Your task to perform on an android device: delete a single message in the gmail app Image 0: 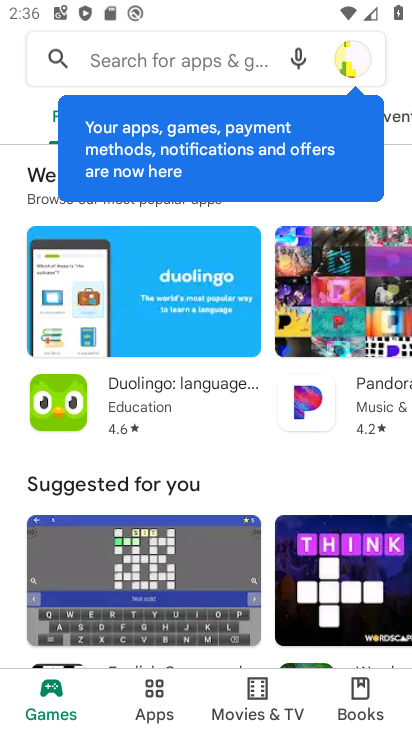
Step 0: drag from (261, 420) to (268, 130)
Your task to perform on an android device: delete a single message in the gmail app Image 1: 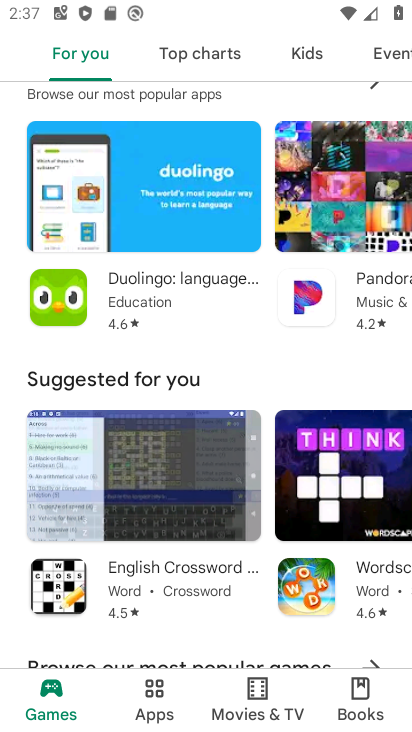
Step 1: press home button
Your task to perform on an android device: delete a single message in the gmail app Image 2: 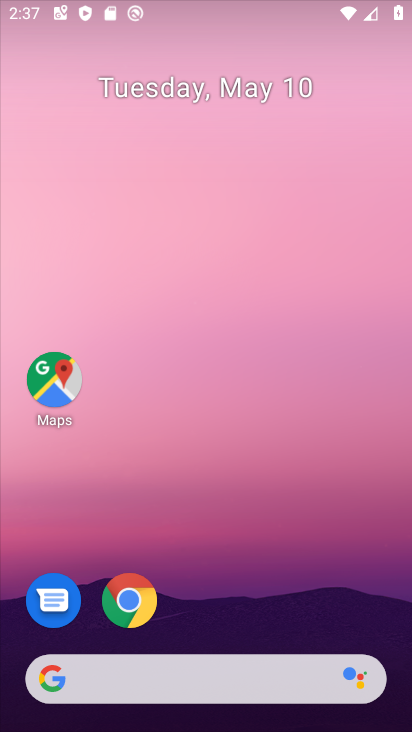
Step 2: drag from (228, 604) to (194, 15)
Your task to perform on an android device: delete a single message in the gmail app Image 3: 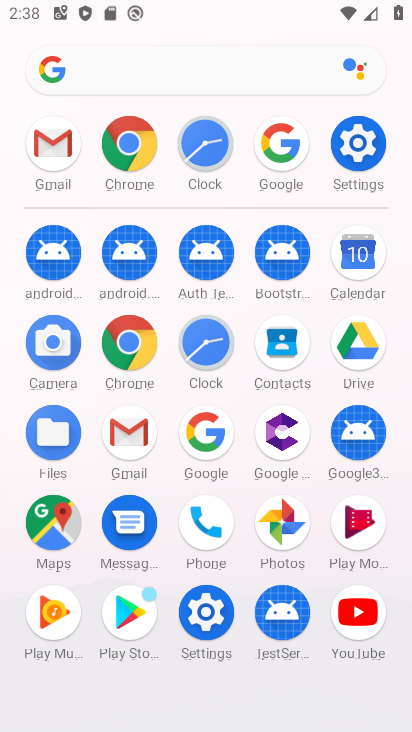
Step 3: click (124, 449)
Your task to perform on an android device: delete a single message in the gmail app Image 4: 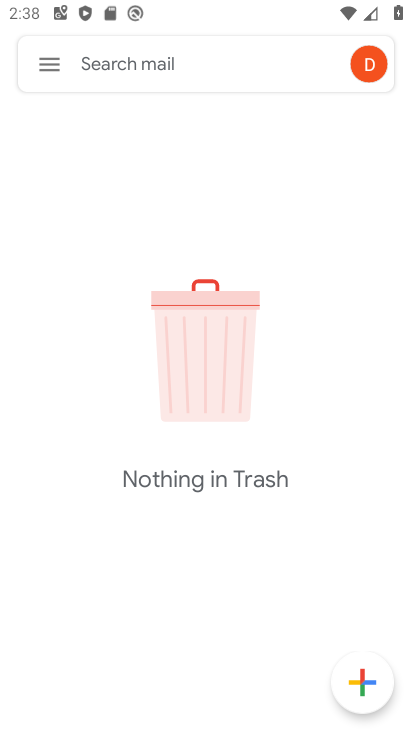
Step 4: click (35, 69)
Your task to perform on an android device: delete a single message in the gmail app Image 5: 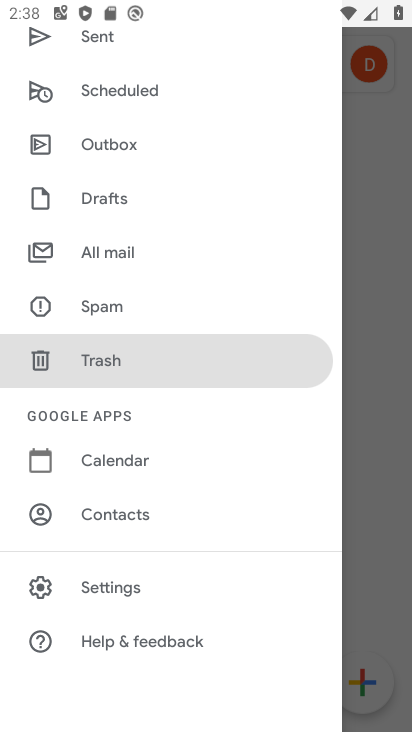
Step 5: click (141, 256)
Your task to perform on an android device: delete a single message in the gmail app Image 6: 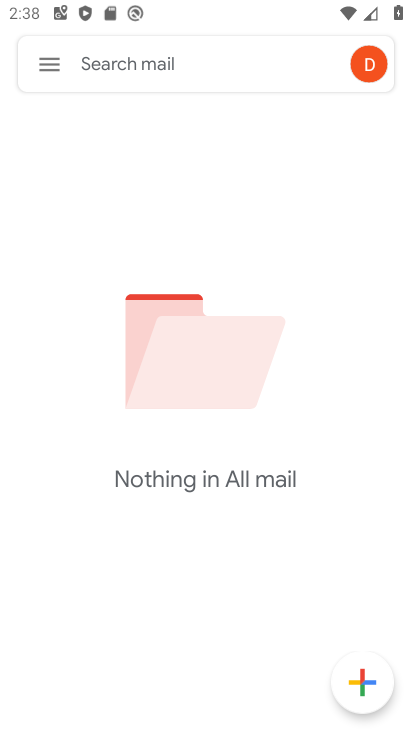
Step 6: task complete